Your task to perform on an android device: Open the Play Movies app and select the watchlist tab. Image 0: 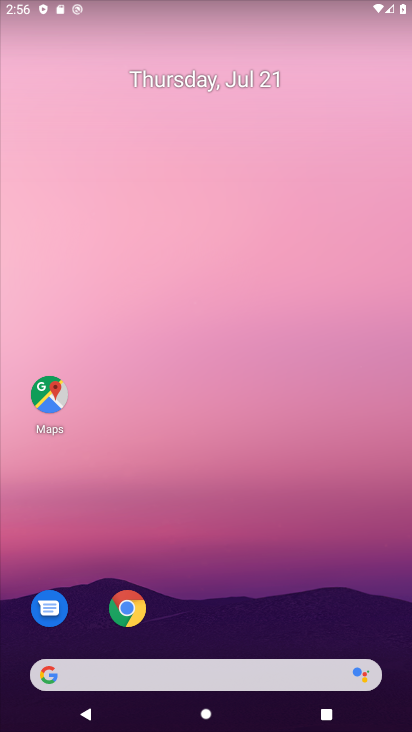
Step 0: drag from (324, 630) to (260, 189)
Your task to perform on an android device: Open the Play Movies app and select the watchlist tab. Image 1: 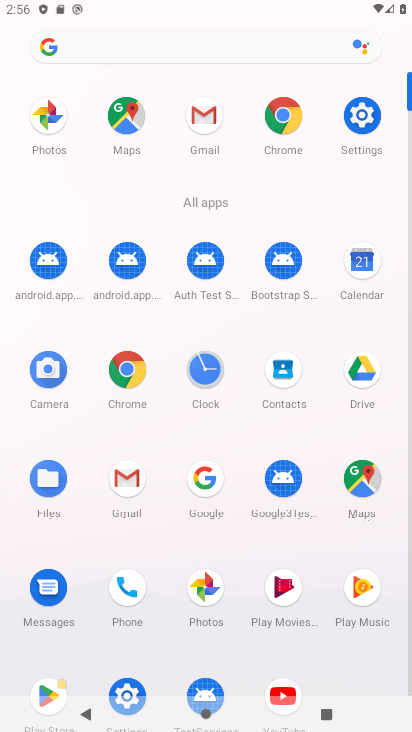
Step 1: click (280, 591)
Your task to perform on an android device: Open the Play Movies app and select the watchlist tab. Image 2: 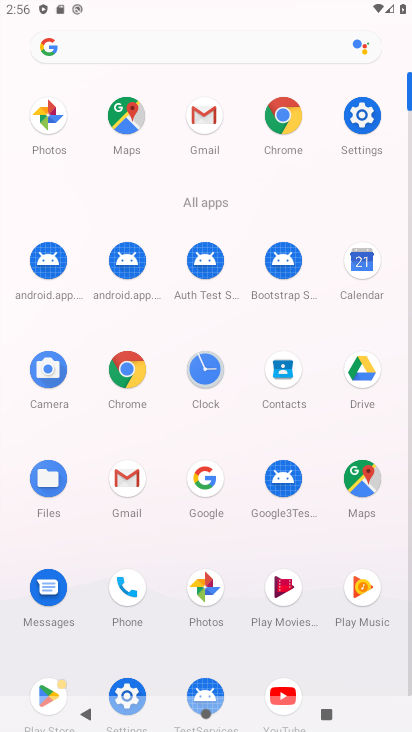
Step 2: click (287, 579)
Your task to perform on an android device: Open the Play Movies app and select the watchlist tab. Image 3: 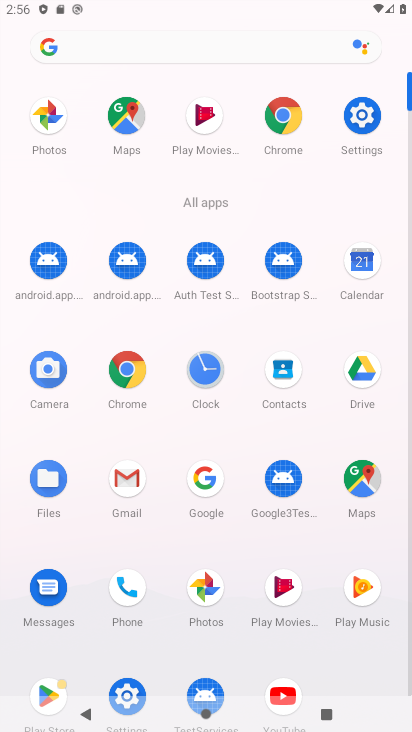
Step 3: click (286, 600)
Your task to perform on an android device: Open the Play Movies app and select the watchlist tab. Image 4: 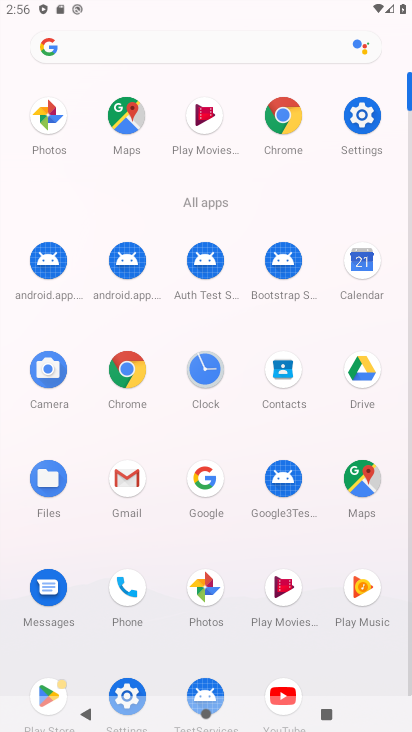
Step 4: task complete